Your task to perform on an android device: Open privacy settings Image 0: 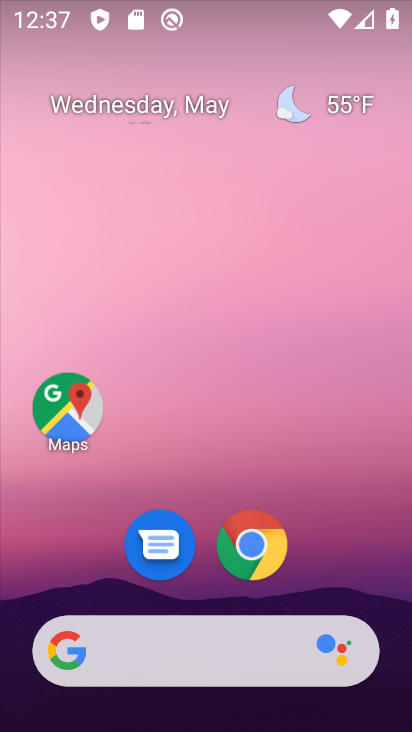
Step 0: drag from (365, 614) to (343, 50)
Your task to perform on an android device: Open privacy settings Image 1: 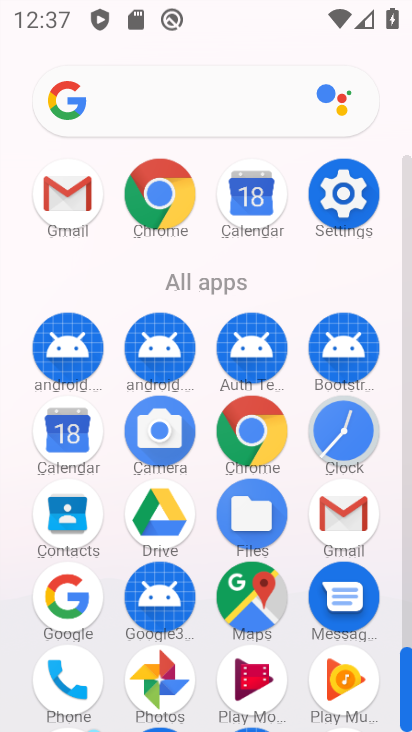
Step 1: click (336, 216)
Your task to perform on an android device: Open privacy settings Image 2: 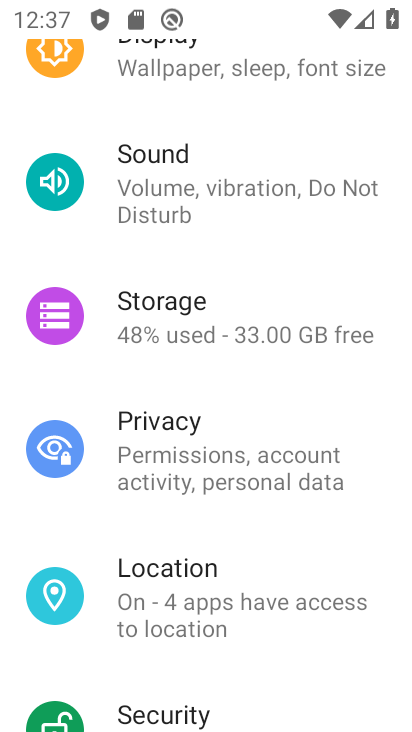
Step 2: click (221, 452)
Your task to perform on an android device: Open privacy settings Image 3: 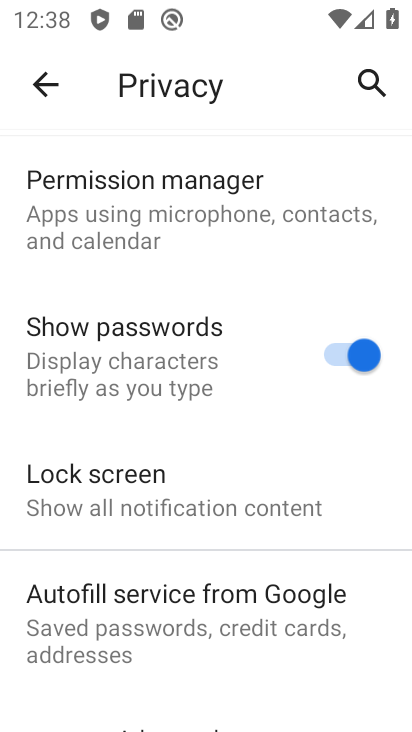
Step 3: task complete